Your task to perform on an android device: Do I have any events tomorrow? Image 0: 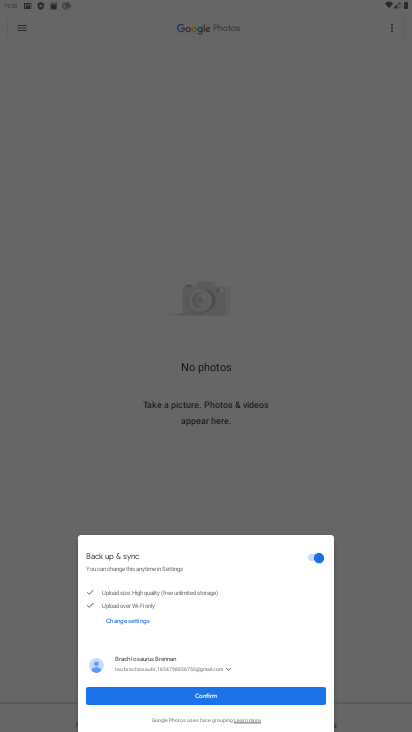
Step 0: press home button
Your task to perform on an android device: Do I have any events tomorrow? Image 1: 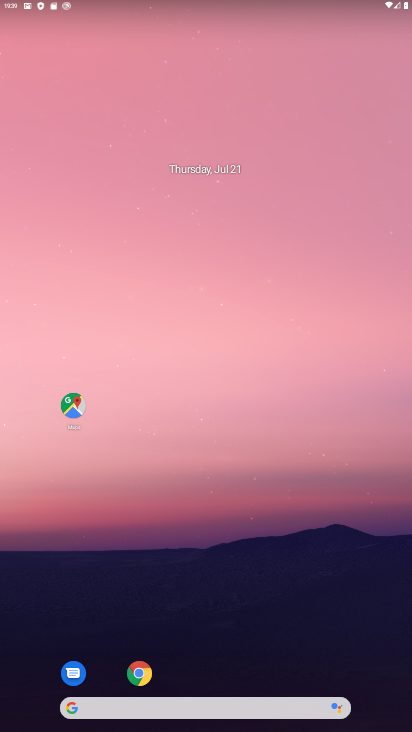
Step 1: drag from (260, 486) to (255, 92)
Your task to perform on an android device: Do I have any events tomorrow? Image 2: 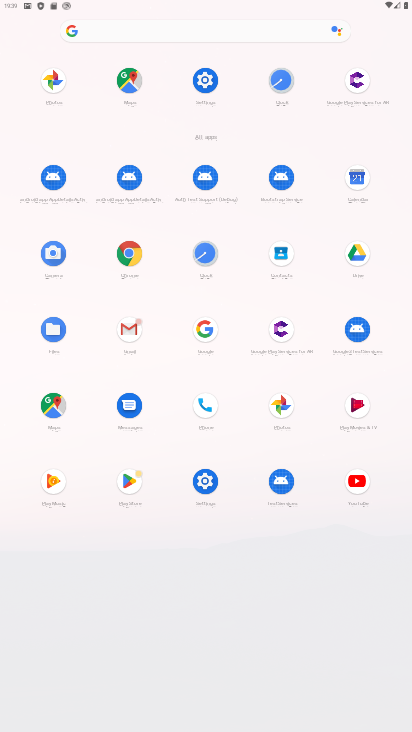
Step 2: click (354, 178)
Your task to perform on an android device: Do I have any events tomorrow? Image 3: 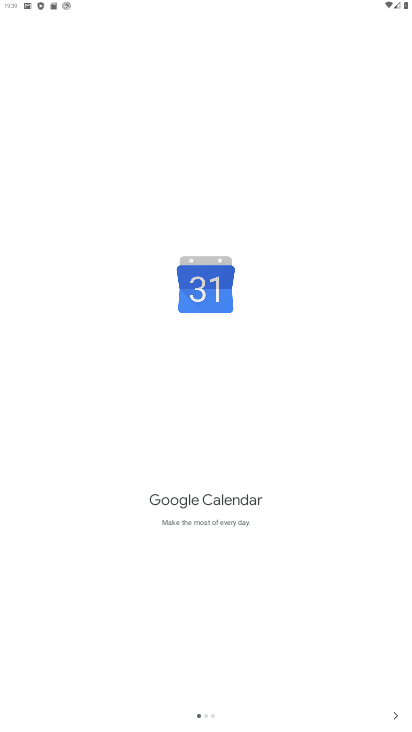
Step 3: click (392, 717)
Your task to perform on an android device: Do I have any events tomorrow? Image 4: 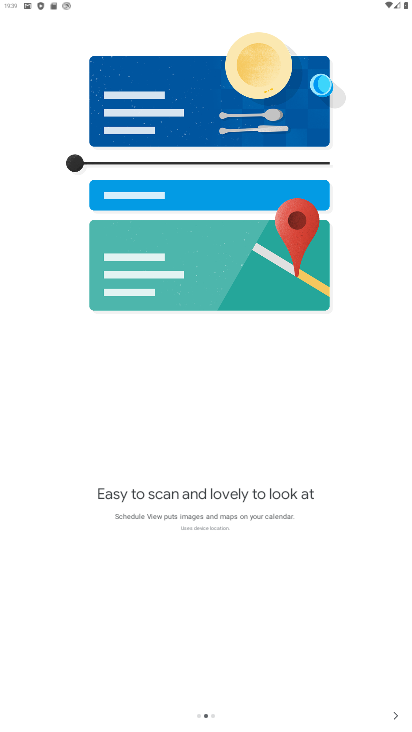
Step 4: click (392, 717)
Your task to perform on an android device: Do I have any events tomorrow? Image 5: 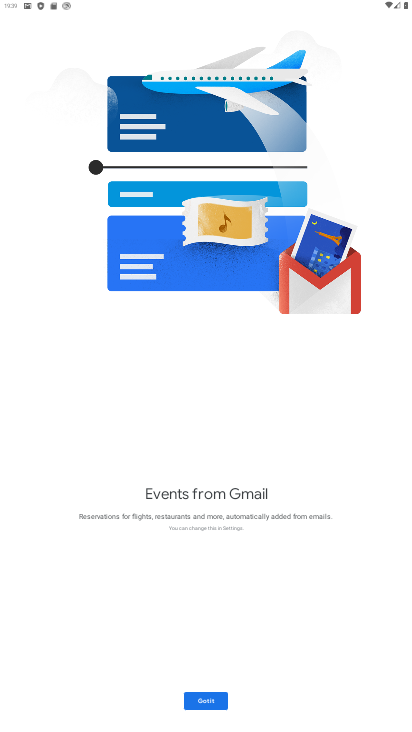
Step 5: click (392, 717)
Your task to perform on an android device: Do I have any events tomorrow? Image 6: 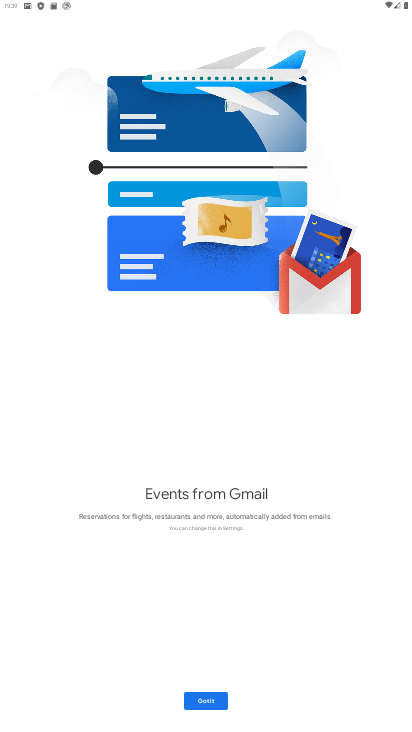
Step 6: click (208, 691)
Your task to perform on an android device: Do I have any events tomorrow? Image 7: 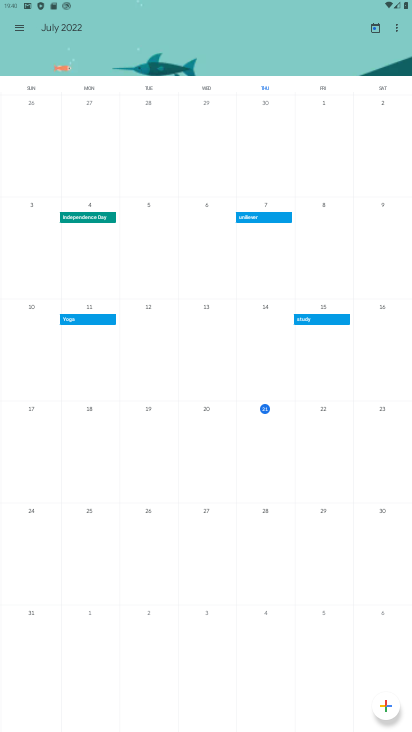
Step 7: click (265, 407)
Your task to perform on an android device: Do I have any events tomorrow? Image 8: 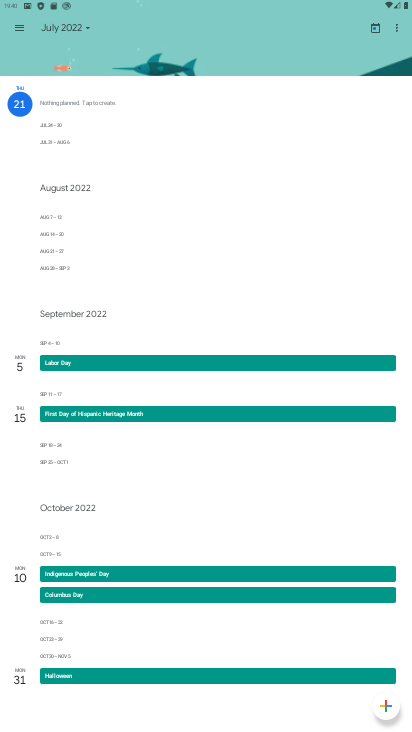
Step 8: click (70, 27)
Your task to perform on an android device: Do I have any events tomorrow? Image 9: 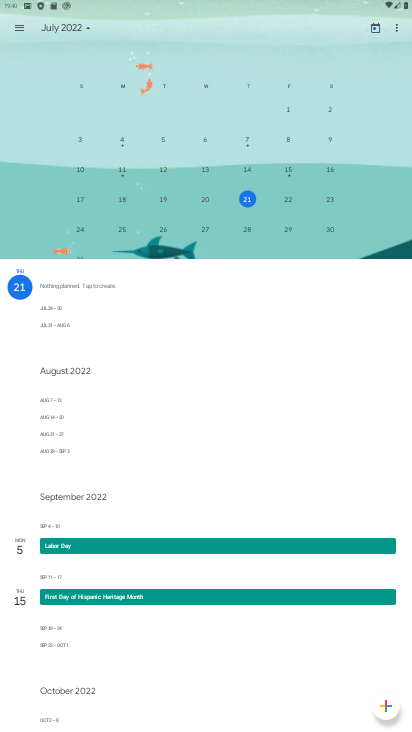
Step 9: click (287, 194)
Your task to perform on an android device: Do I have any events tomorrow? Image 10: 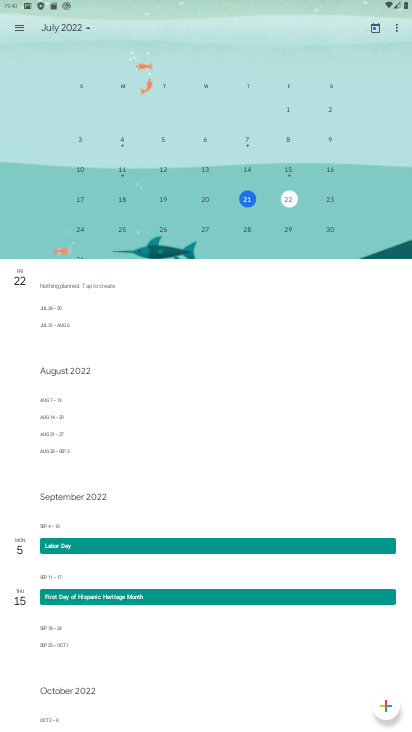
Step 10: click (136, 280)
Your task to perform on an android device: Do I have any events tomorrow? Image 11: 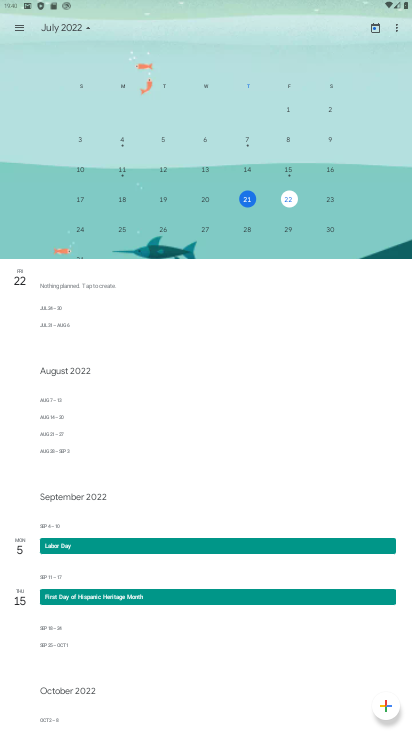
Step 11: click (20, 279)
Your task to perform on an android device: Do I have any events tomorrow? Image 12: 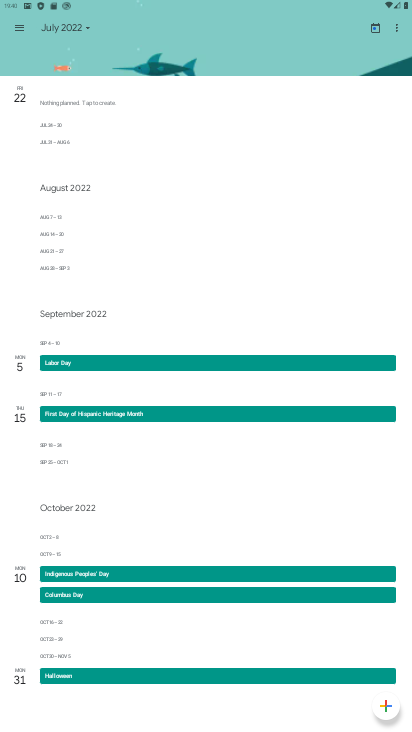
Step 12: task complete